Your task to perform on an android device: turn off smart reply in the gmail app Image 0: 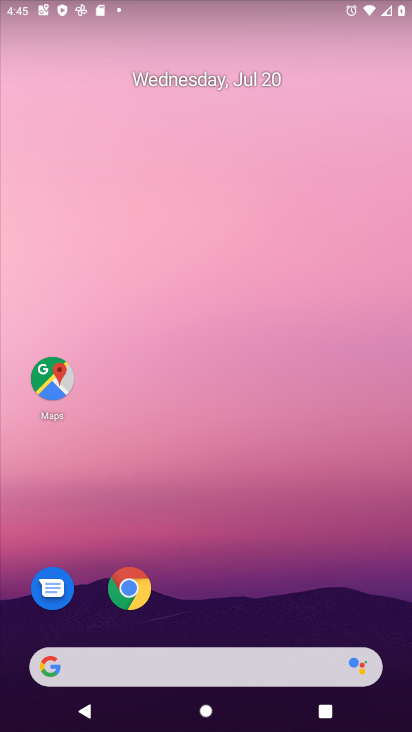
Step 0: drag from (268, 498) to (324, 93)
Your task to perform on an android device: turn off smart reply in the gmail app Image 1: 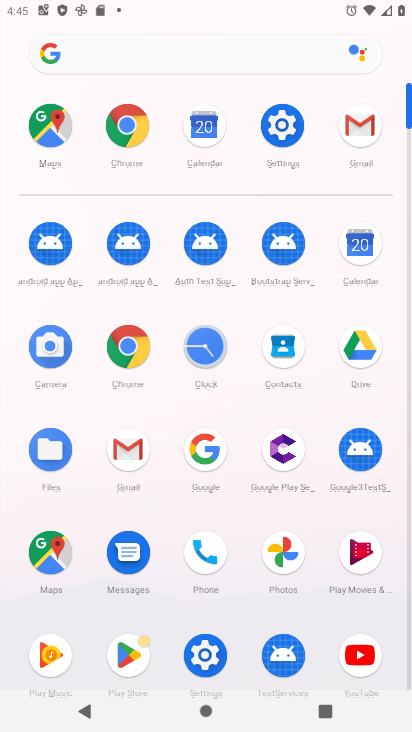
Step 1: click (367, 119)
Your task to perform on an android device: turn off smart reply in the gmail app Image 2: 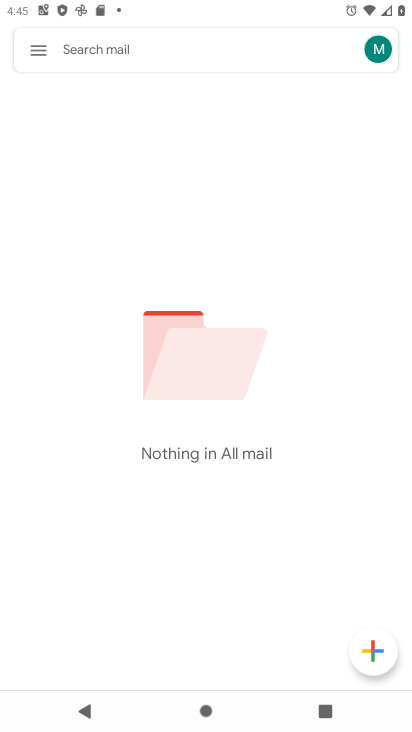
Step 2: click (34, 44)
Your task to perform on an android device: turn off smart reply in the gmail app Image 3: 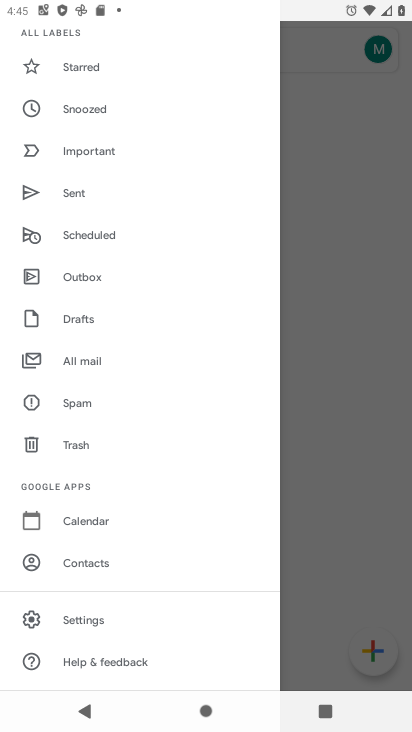
Step 3: click (91, 622)
Your task to perform on an android device: turn off smart reply in the gmail app Image 4: 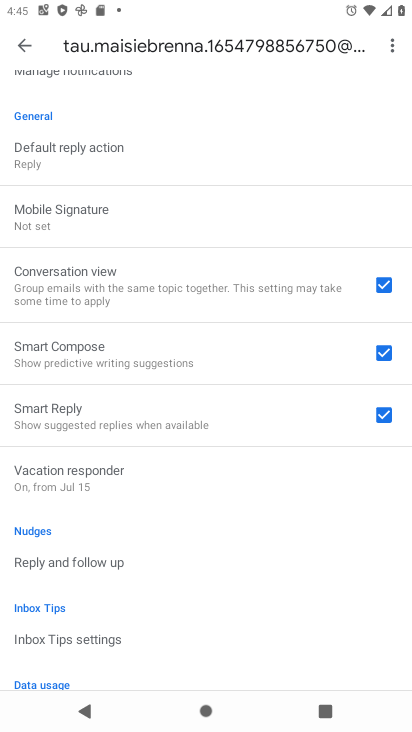
Step 4: drag from (185, 137) to (179, 222)
Your task to perform on an android device: turn off smart reply in the gmail app Image 5: 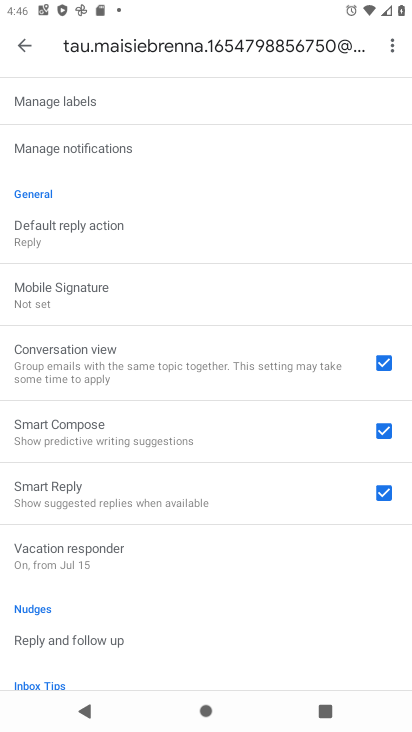
Step 5: click (388, 493)
Your task to perform on an android device: turn off smart reply in the gmail app Image 6: 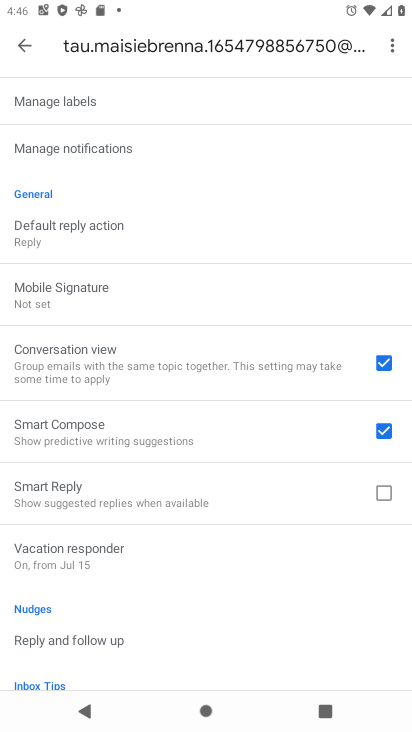
Step 6: task complete